Your task to perform on an android device: Go to sound settings Image 0: 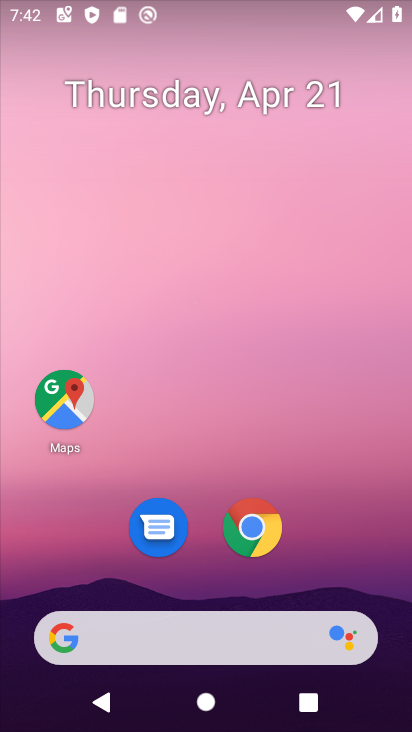
Step 0: drag from (184, 607) to (220, 26)
Your task to perform on an android device: Go to sound settings Image 1: 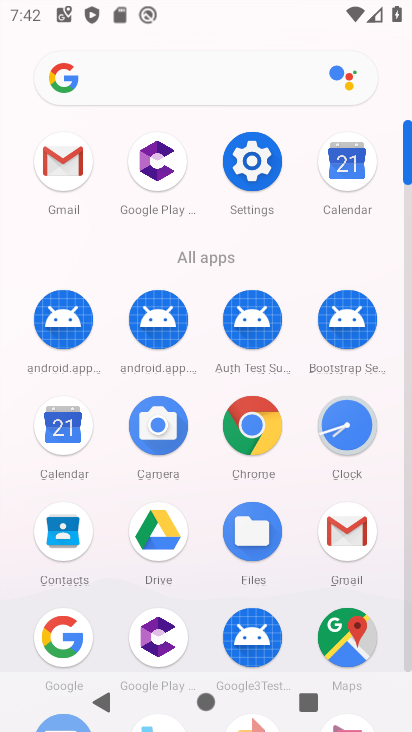
Step 1: click (247, 174)
Your task to perform on an android device: Go to sound settings Image 2: 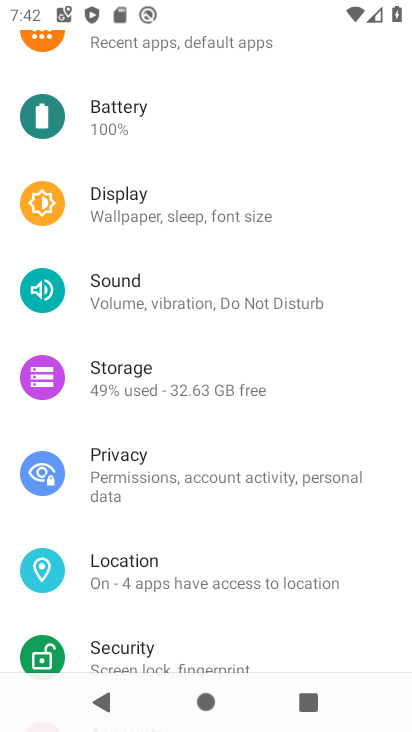
Step 2: click (195, 315)
Your task to perform on an android device: Go to sound settings Image 3: 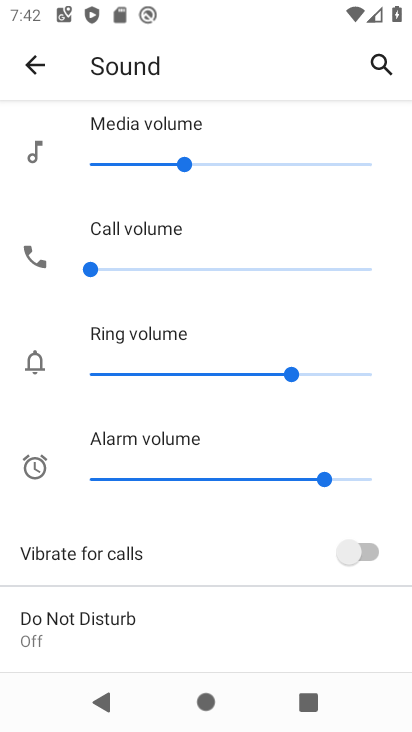
Step 3: task complete